Your task to perform on an android device: Open the Play Movies app and select the watchlist tab. Image 0: 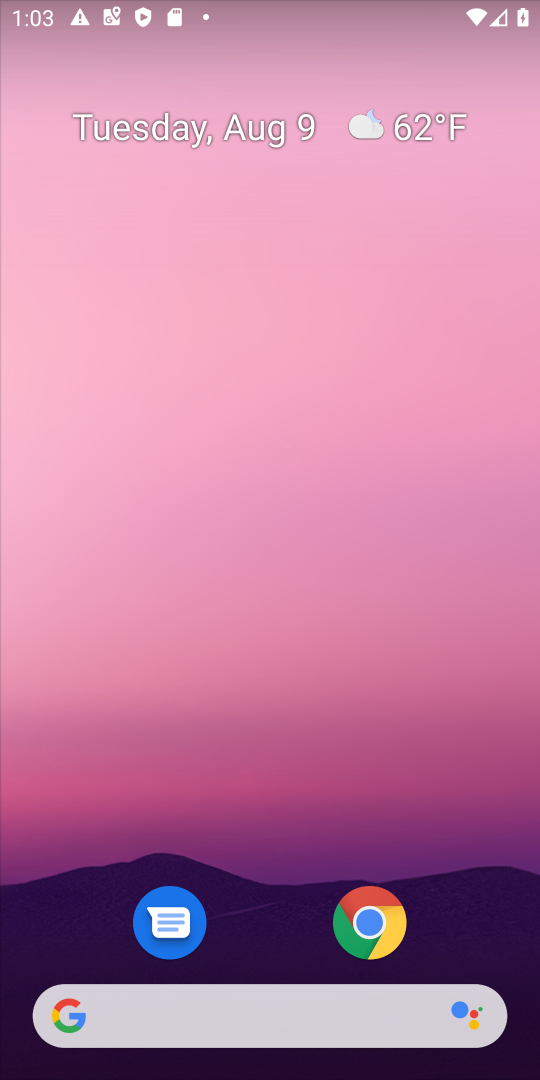
Step 0: drag from (269, 967) to (457, 31)
Your task to perform on an android device: Open the Play Movies app and select the watchlist tab. Image 1: 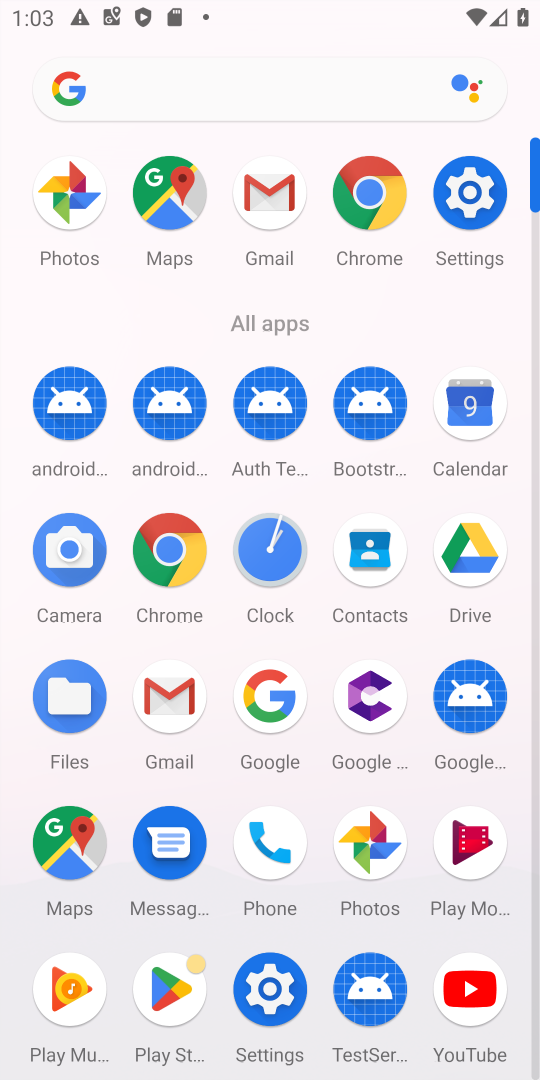
Step 1: click (473, 865)
Your task to perform on an android device: Open the Play Movies app and select the watchlist tab. Image 2: 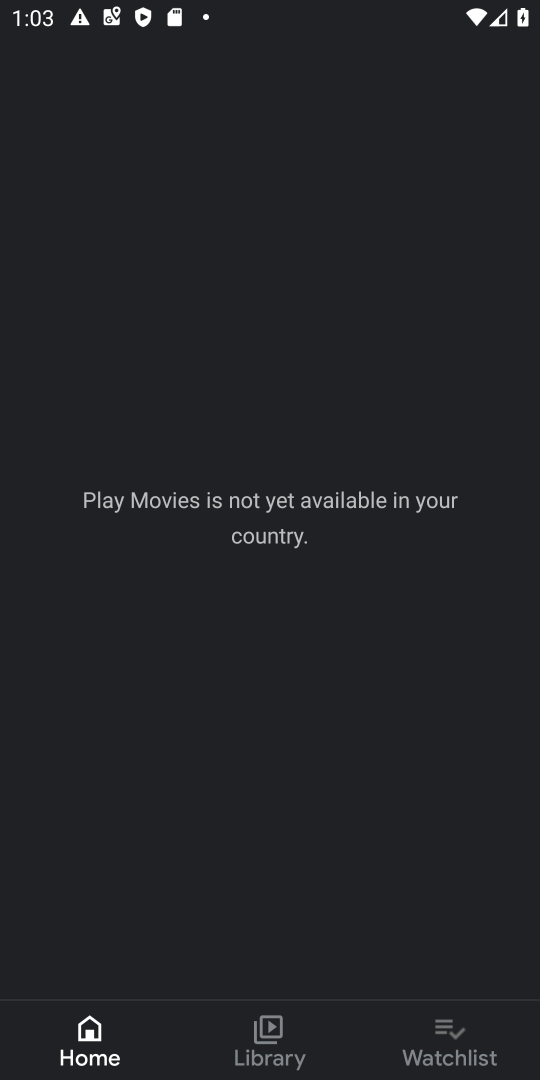
Step 2: click (457, 1048)
Your task to perform on an android device: Open the Play Movies app and select the watchlist tab. Image 3: 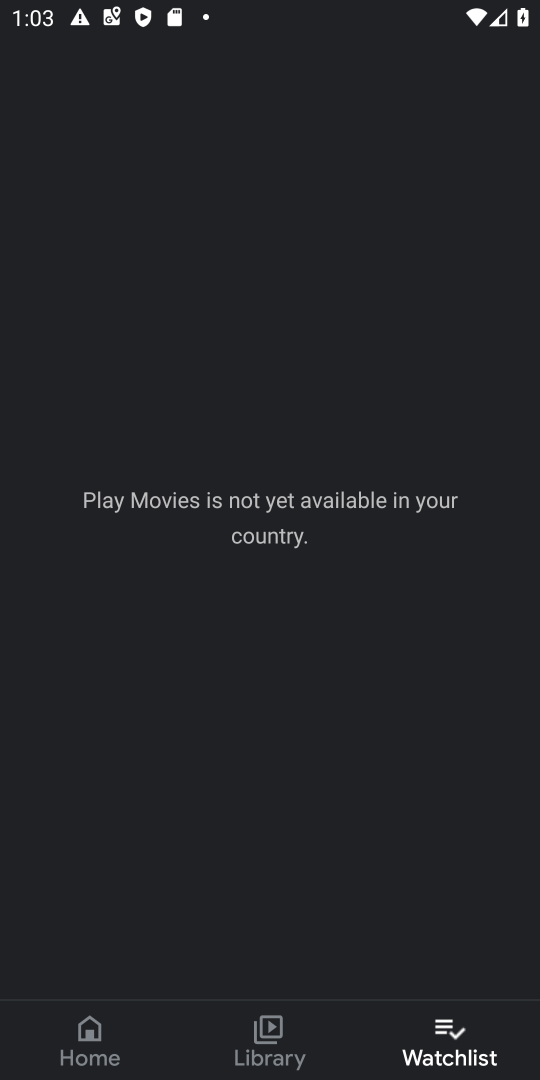
Step 3: task complete